Your task to perform on an android device: toggle javascript in the chrome app Image 0: 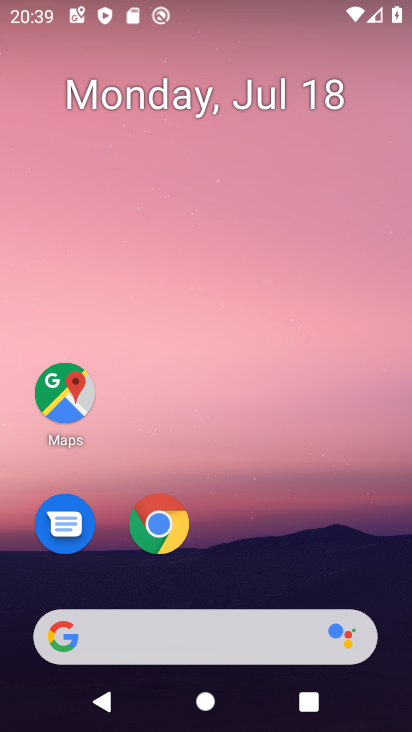
Step 0: click (168, 519)
Your task to perform on an android device: toggle javascript in the chrome app Image 1: 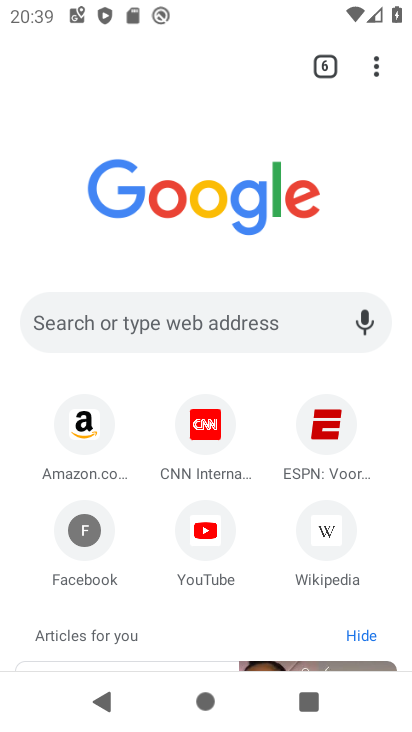
Step 1: click (376, 64)
Your task to perform on an android device: toggle javascript in the chrome app Image 2: 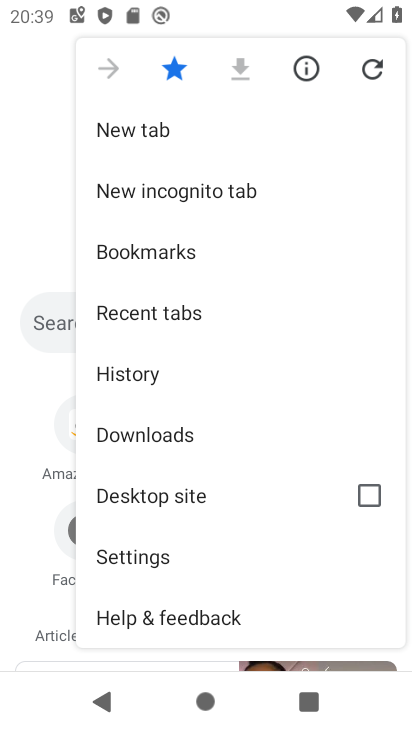
Step 2: click (162, 553)
Your task to perform on an android device: toggle javascript in the chrome app Image 3: 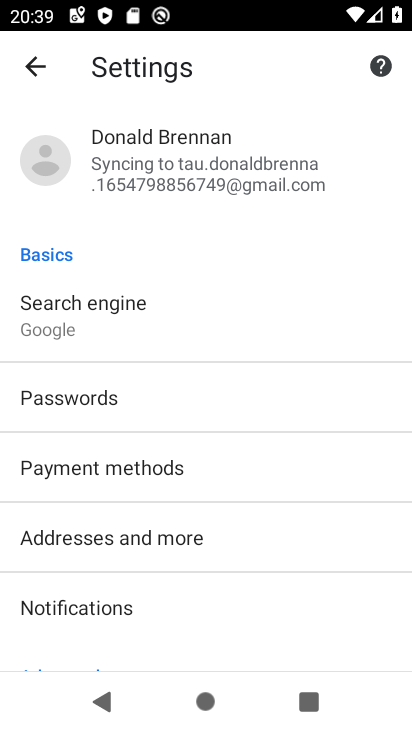
Step 3: drag from (234, 548) to (251, 288)
Your task to perform on an android device: toggle javascript in the chrome app Image 4: 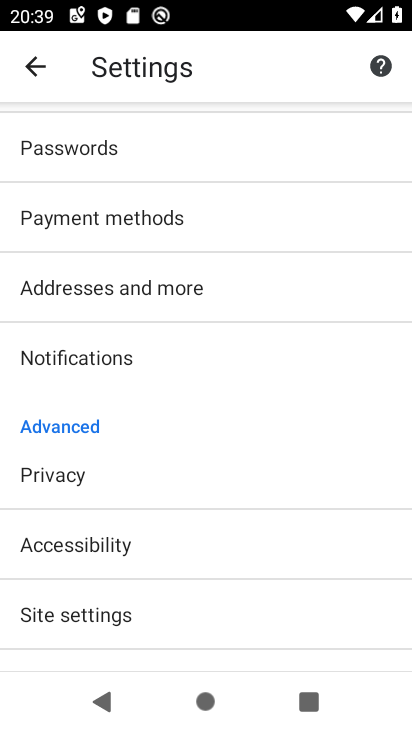
Step 4: click (143, 624)
Your task to perform on an android device: toggle javascript in the chrome app Image 5: 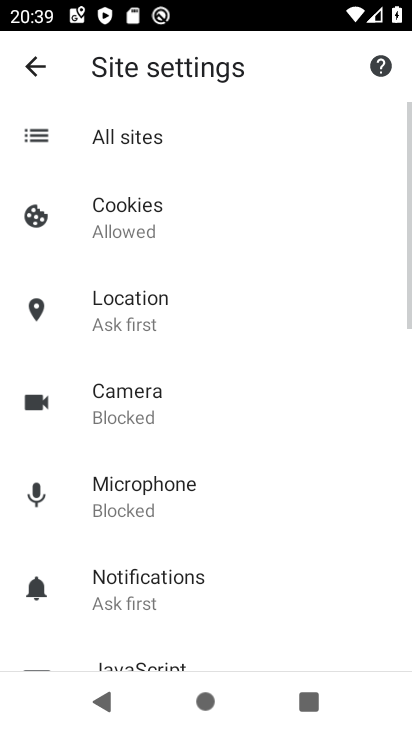
Step 5: drag from (203, 581) to (197, 425)
Your task to perform on an android device: toggle javascript in the chrome app Image 6: 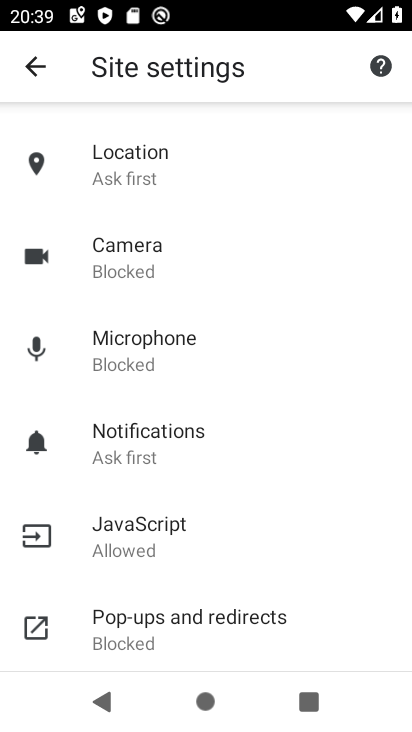
Step 6: click (174, 541)
Your task to perform on an android device: toggle javascript in the chrome app Image 7: 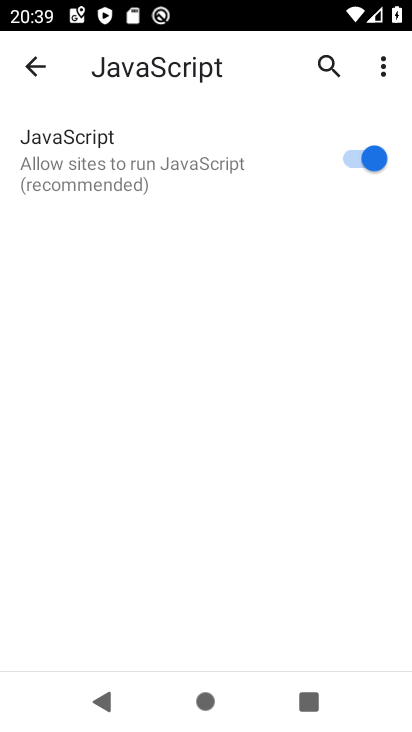
Step 7: click (350, 154)
Your task to perform on an android device: toggle javascript in the chrome app Image 8: 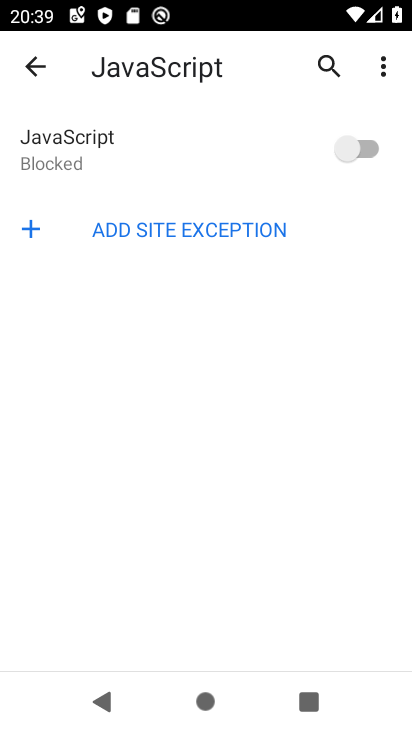
Step 8: task complete